Your task to perform on an android device: set an alarm Image 0: 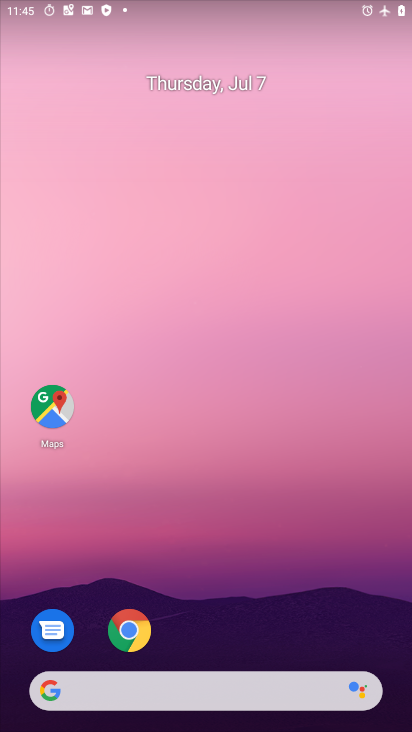
Step 0: drag from (254, 640) to (189, 204)
Your task to perform on an android device: set an alarm Image 1: 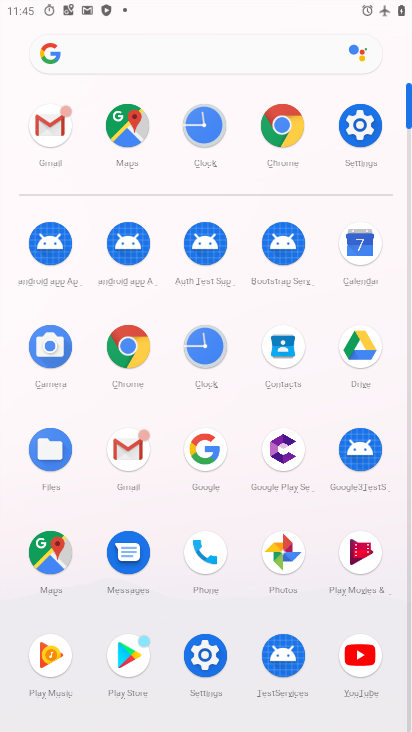
Step 1: click (217, 148)
Your task to perform on an android device: set an alarm Image 2: 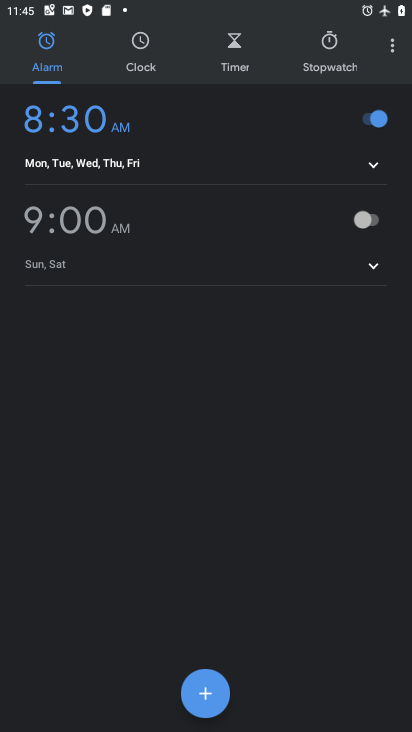
Step 2: click (376, 221)
Your task to perform on an android device: set an alarm Image 3: 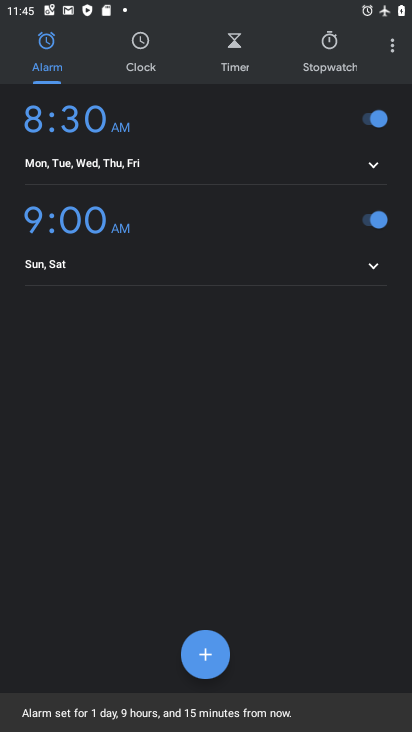
Step 3: task complete